Your task to perform on an android device: move a message to another label in the gmail app Image 0: 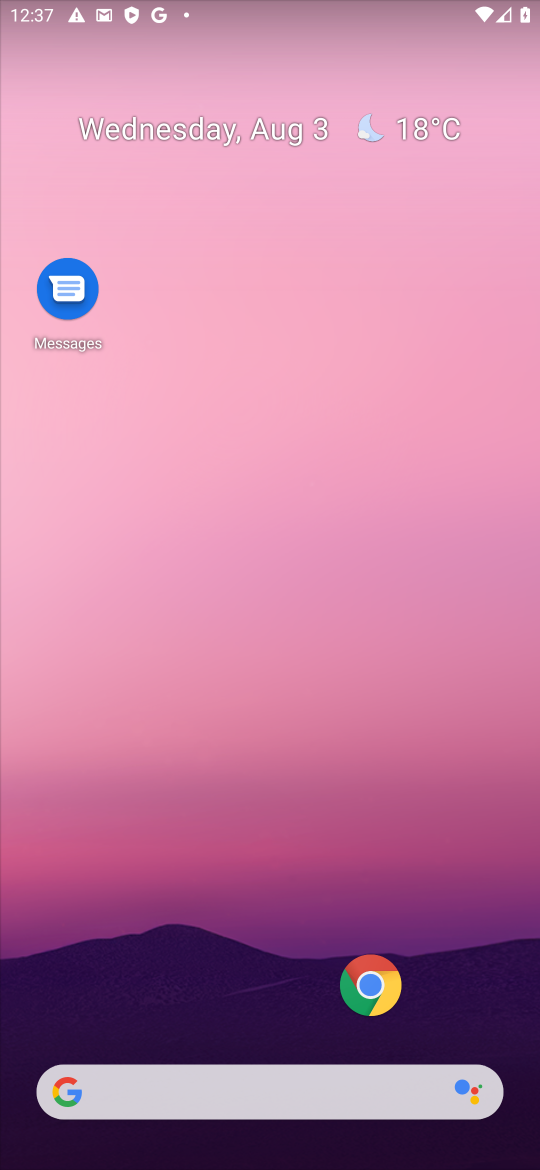
Step 0: drag from (201, 1000) to (384, 57)
Your task to perform on an android device: move a message to another label in the gmail app Image 1: 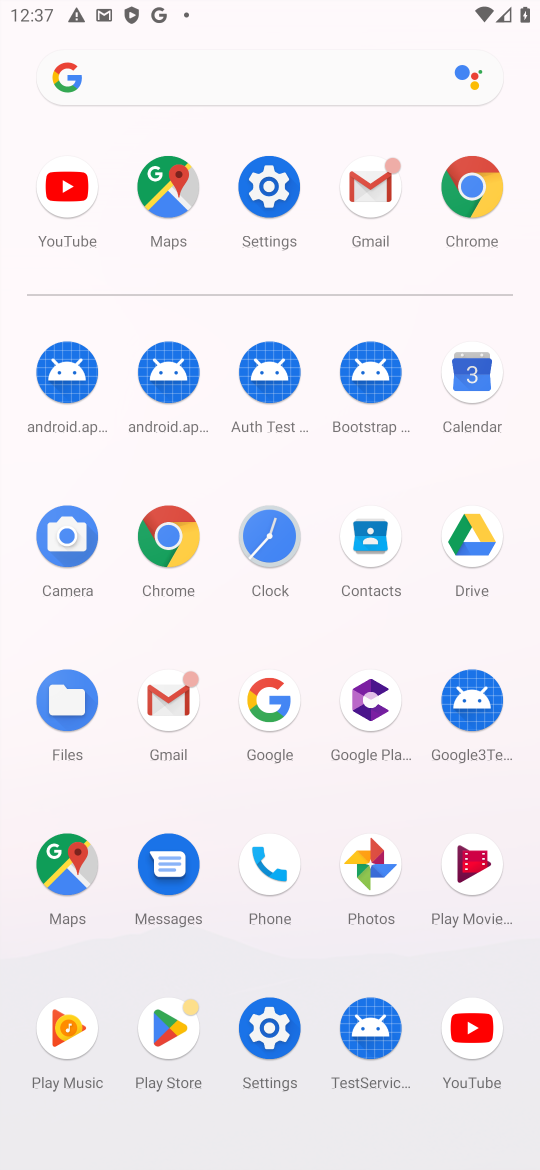
Step 1: click (390, 207)
Your task to perform on an android device: move a message to another label in the gmail app Image 2: 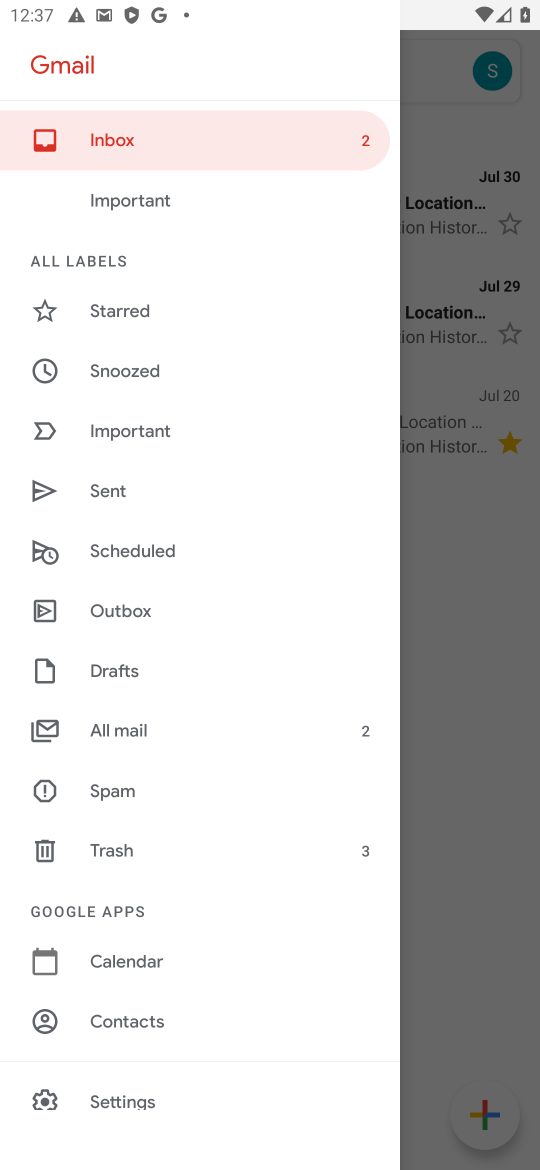
Step 2: task complete